Your task to perform on an android device: turn notification dots off Image 0: 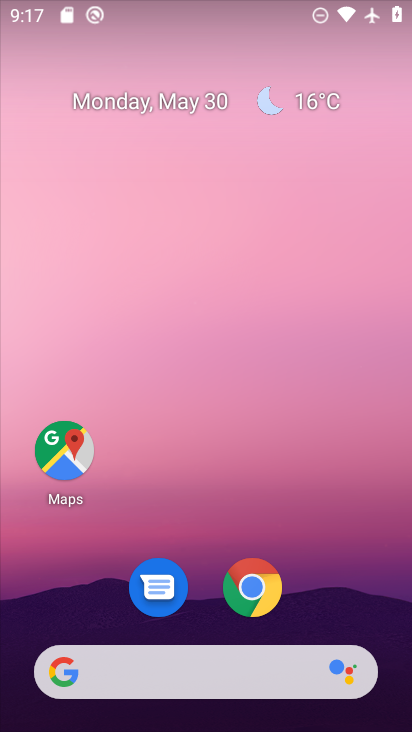
Step 0: drag from (204, 671) to (335, 119)
Your task to perform on an android device: turn notification dots off Image 1: 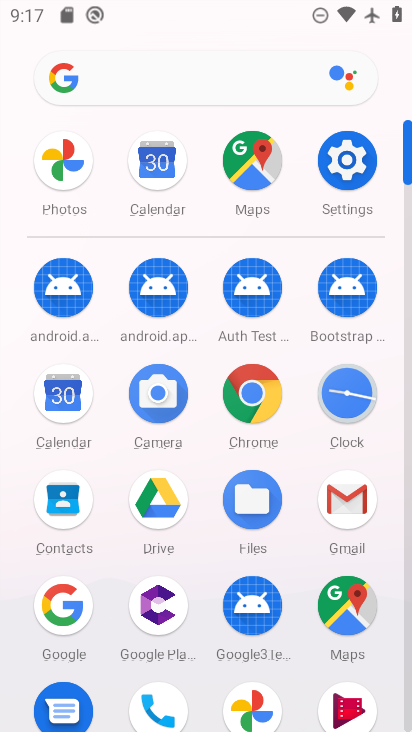
Step 1: click (352, 165)
Your task to perform on an android device: turn notification dots off Image 2: 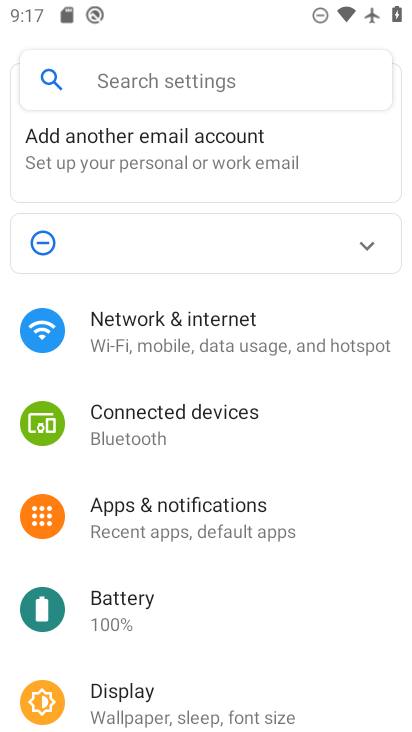
Step 2: click (206, 510)
Your task to perform on an android device: turn notification dots off Image 3: 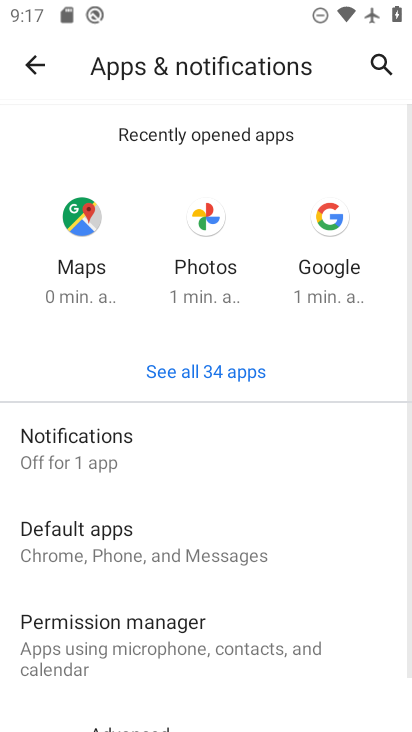
Step 3: click (92, 445)
Your task to perform on an android device: turn notification dots off Image 4: 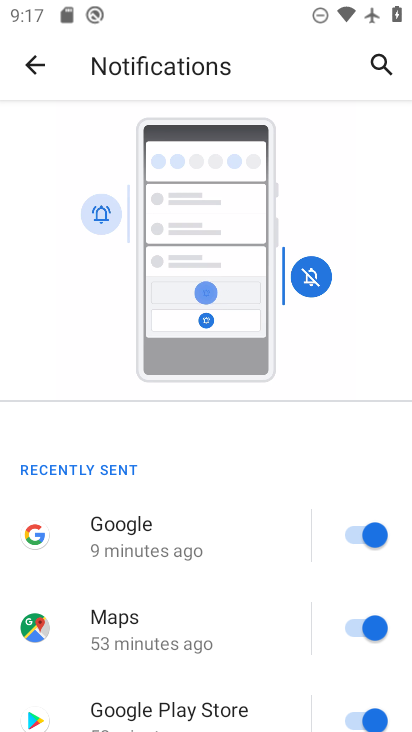
Step 4: drag from (184, 695) to (349, 230)
Your task to perform on an android device: turn notification dots off Image 5: 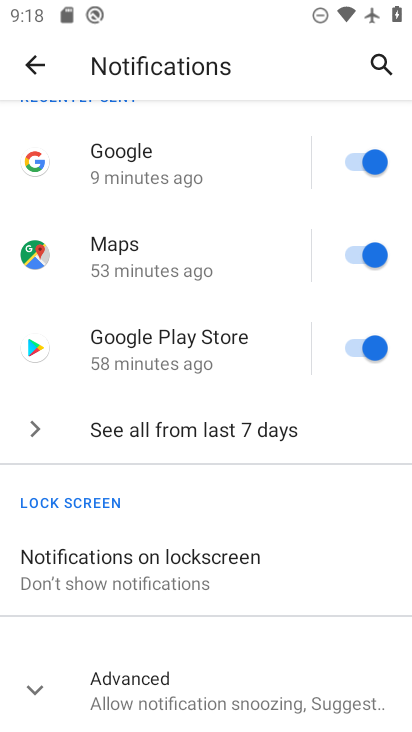
Step 5: click (151, 691)
Your task to perform on an android device: turn notification dots off Image 6: 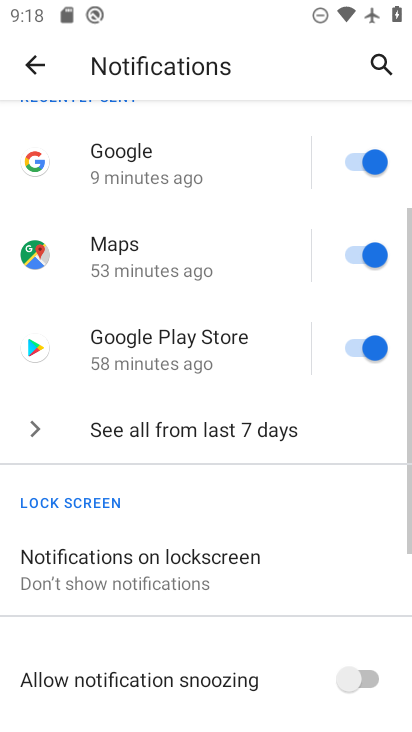
Step 6: drag from (198, 644) to (345, 126)
Your task to perform on an android device: turn notification dots off Image 7: 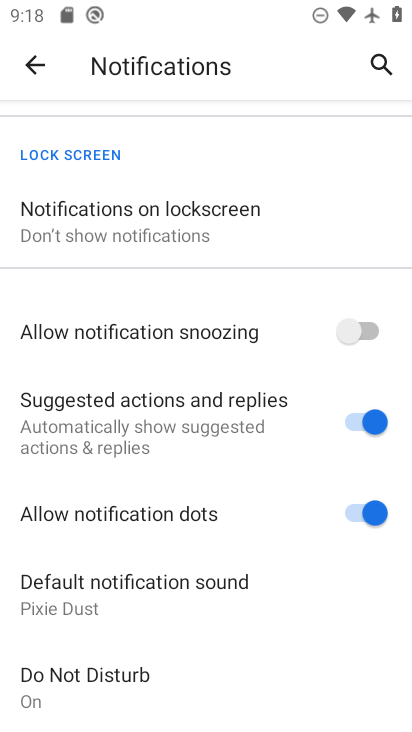
Step 7: click (357, 517)
Your task to perform on an android device: turn notification dots off Image 8: 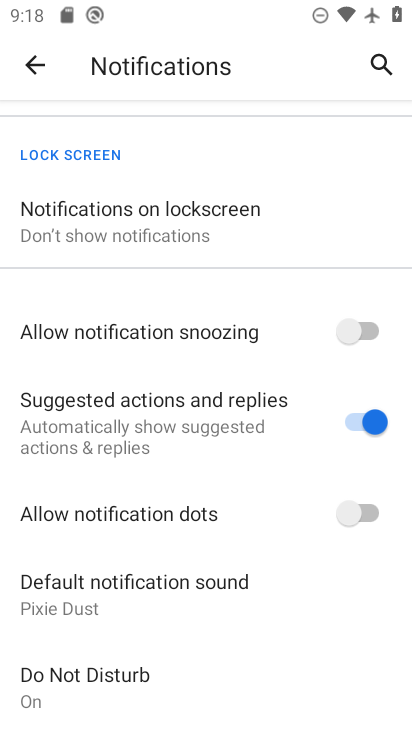
Step 8: task complete